Your task to perform on an android device: set the stopwatch Image 0: 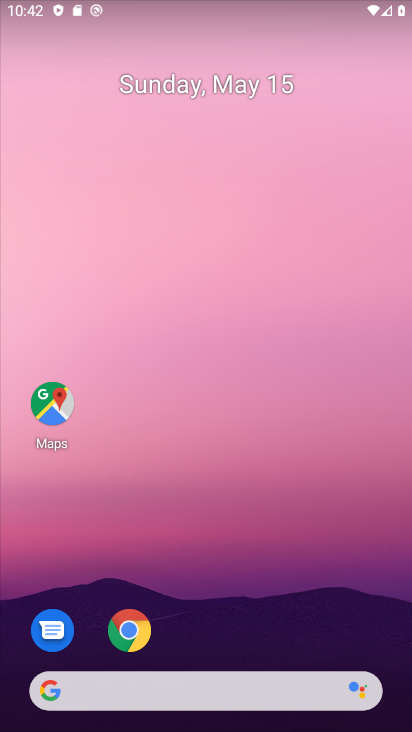
Step 0: drag from (195, 633) to (297, 60)
Your task to perform on an android device: set the stopwatch Image 1: 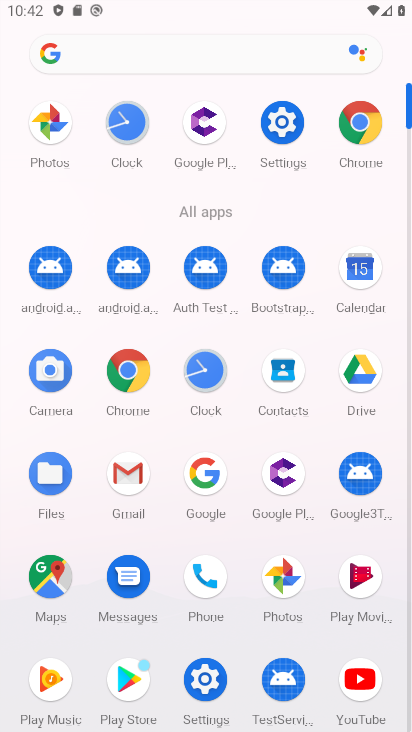
Step 1: click (217, 375)
Your task to perform on an android device: set the stopwatch Image 2: 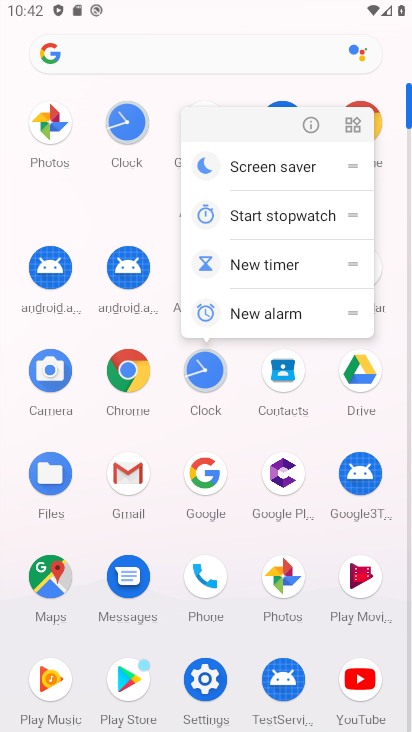
Step 2: click (199, 361)
Your task to perform on an android device: set the stopwatch Image 3: 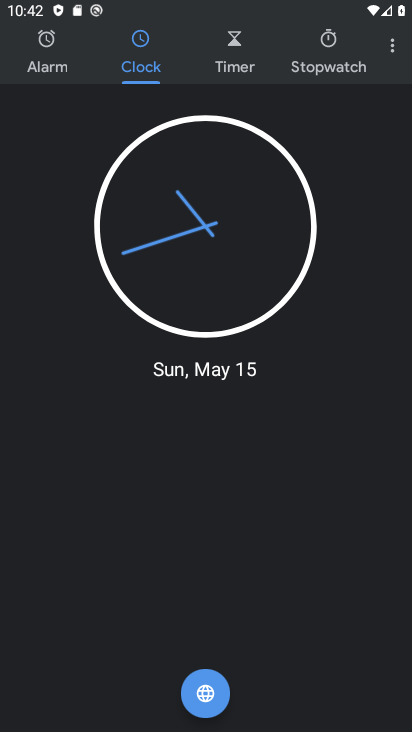
Step 3: click (320, 49)
Your task to perform on an android device: set the stopwatch Image 4: 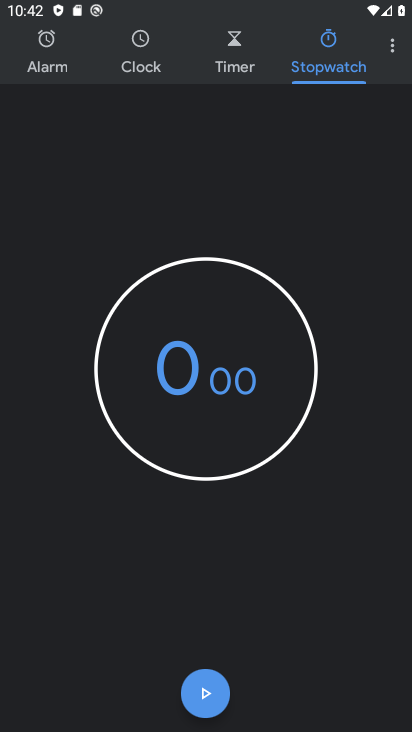
Step 4: click (198, 407)
Your task to perform on an android device: set the stopwatch Image 5: 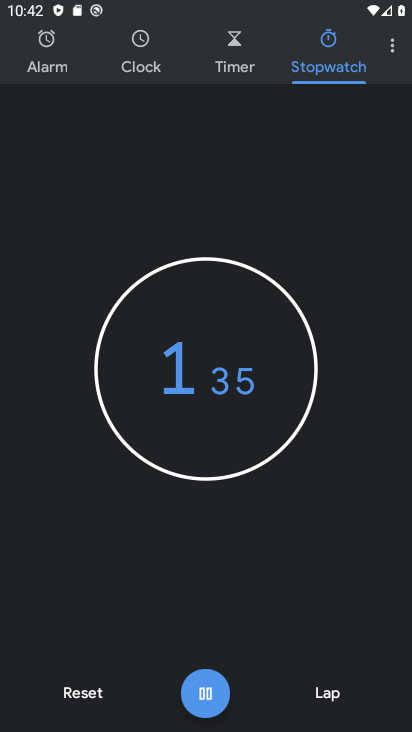
Step 5: click (197, 390)
Your task to perform on an android device: set the stopwatch Image 6: 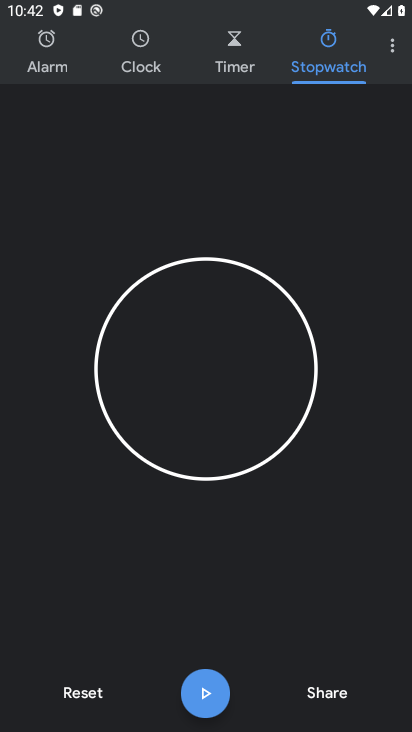
Step 6: task complete